Your task to perform on an android device: toggle pop-ups in chrome Image 0: 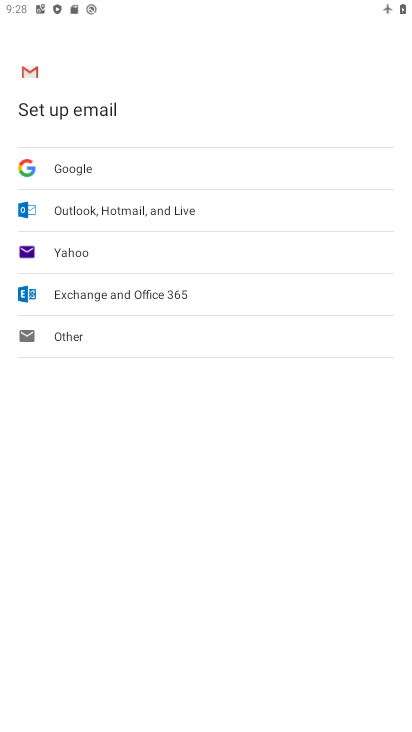
Step 0: press home button
Your task to perform on an android device: toggle pop-ups in chrome Image 1: 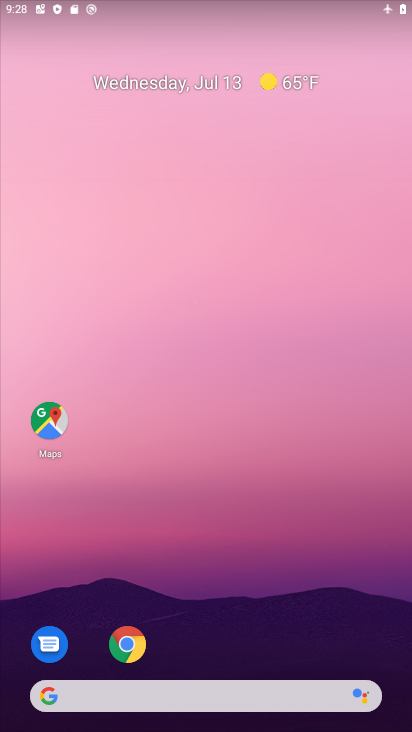
Step 1: drag from (255, 616) to (180, 6)
Your task to perform on an android device: toggle pop-ups in chrome Image 2: 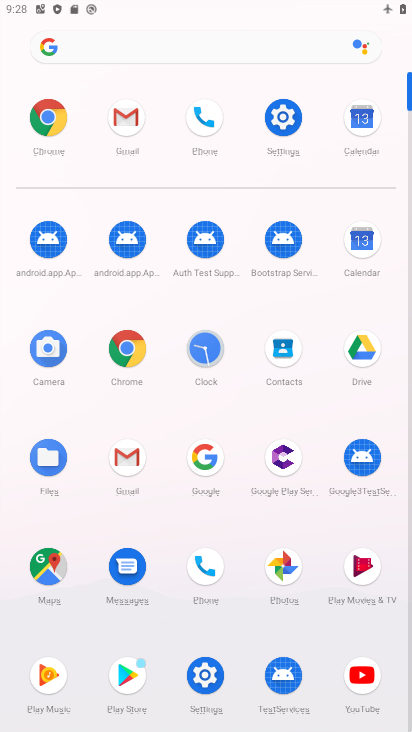
Step 2: click (55, 125)
Your task to perform on an android device: toggle pop-ups in chrome Image 3: 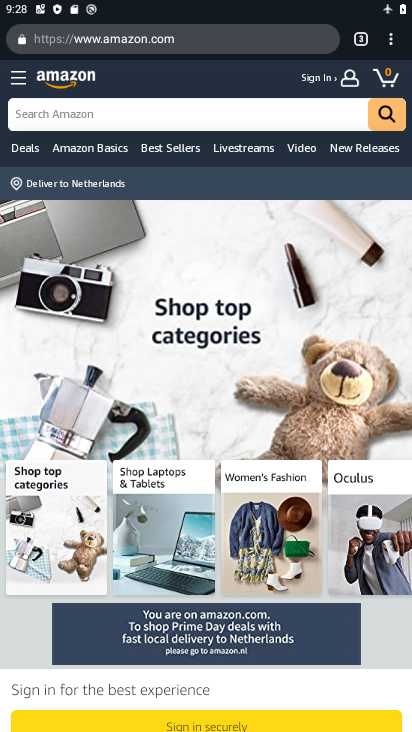
Step 3: drag from (396, 39) to (264, 422)
Your task to perform on an android device: toggle pop-ups in chrome Image 4: 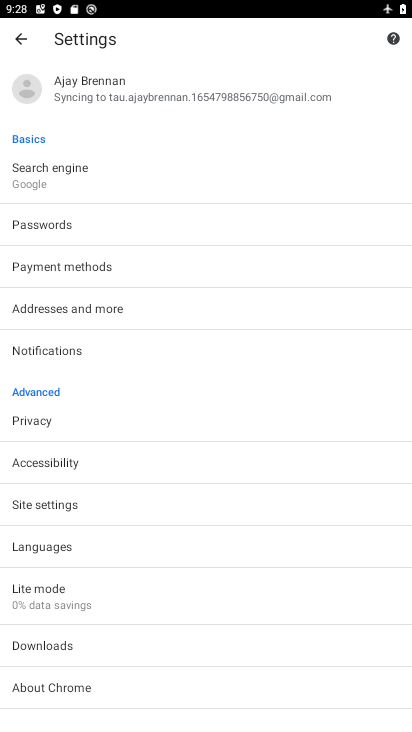
Step 4: click (67, 506)
Your task to perform on an android device: toggle pop-ups in chrome Image 5: 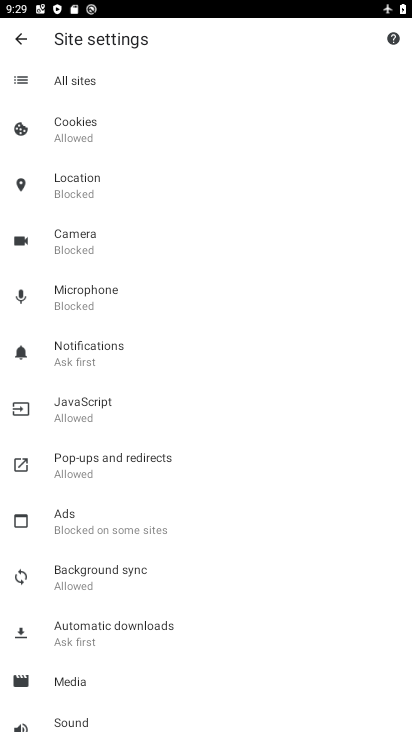
Step 5: click (108, 472)
Your task to perform on an android device: toggle pop-ups in chrome Image 6: 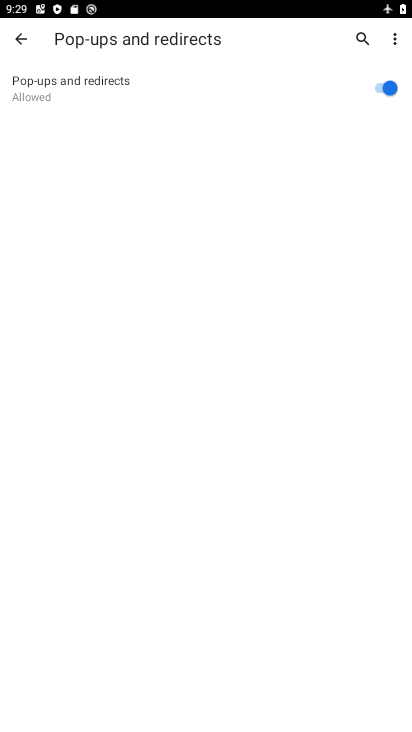
Step 6: click (389, 85)
Your task to perform on an android device: toggle pop-ups in chrome Image 7: 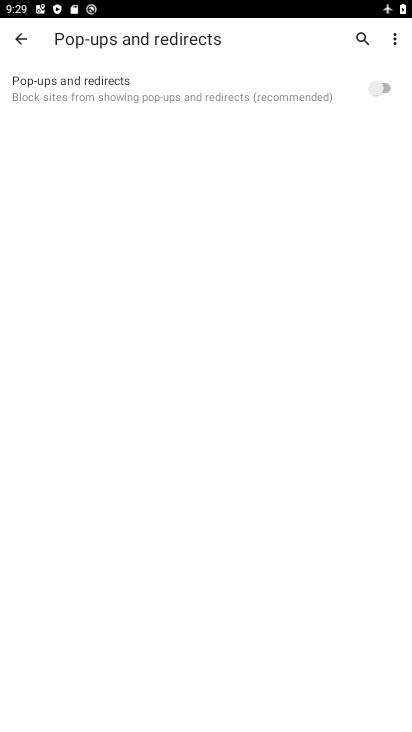
Step 7: task complete